Your task to perform on an android device: Add macbook air to the cart on newegg.com, then select checkout. Image 0: 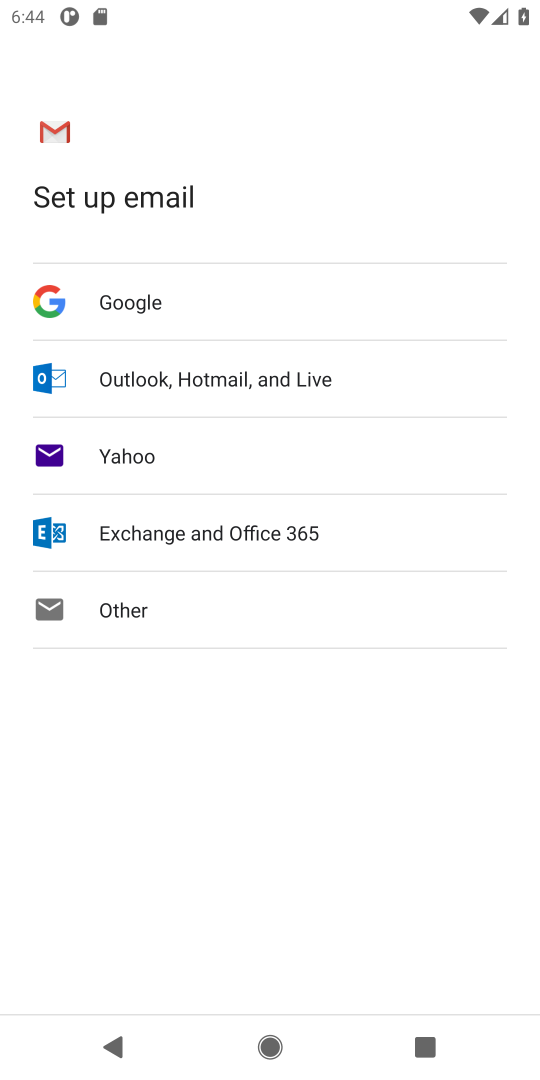
Step 0: press home button
Your task to perform on an android device: Add macbook air to the cart on newegg.com, then select checkout. Image 1: 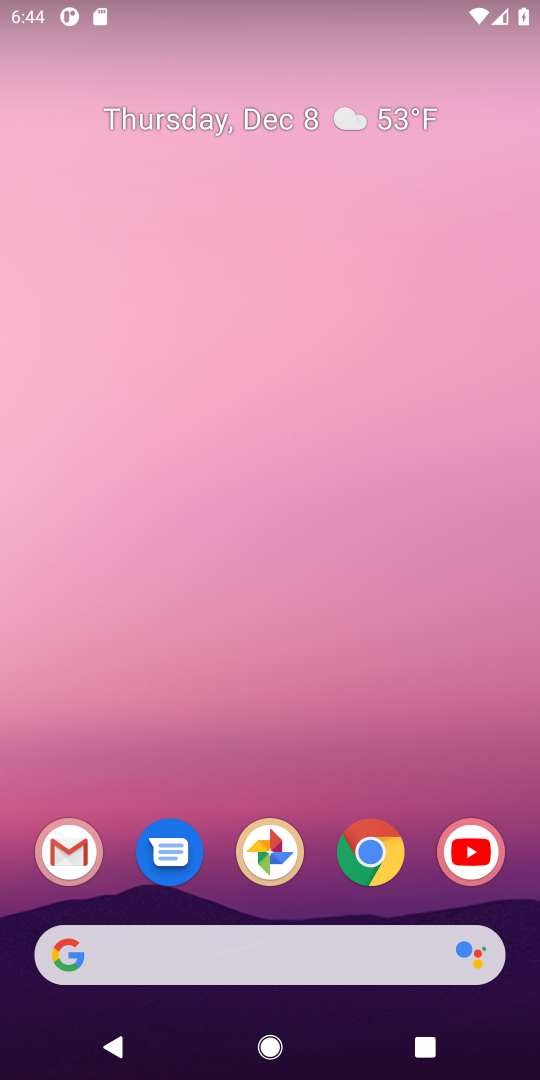
Step 1: click (203, 972)
Your task to perform on an android device: Add macbook air to the cart on newegg.com, then select checkout. Image 2: 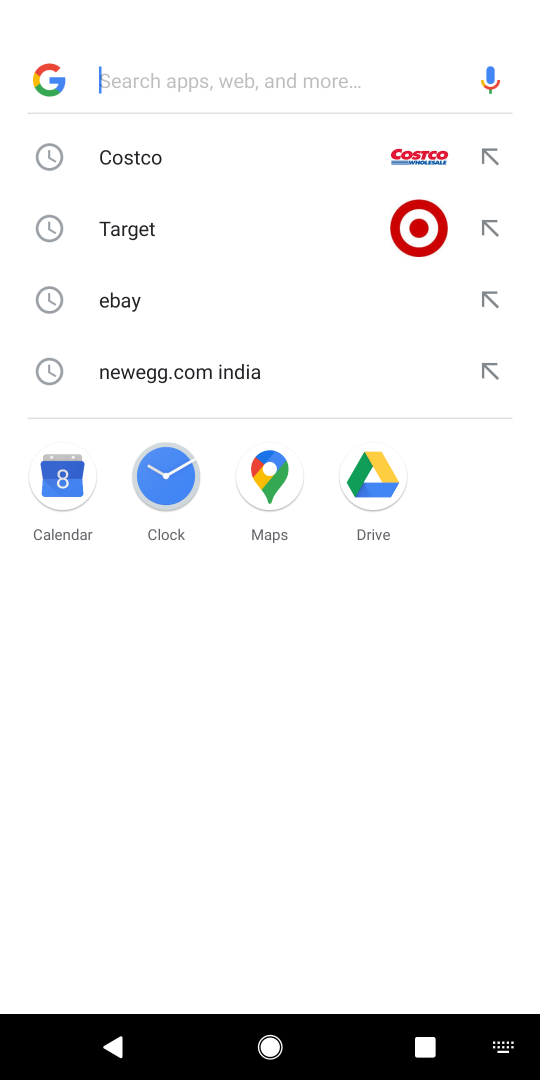
Step 2: type "newegg"
Your task to perform on an android device: Add macbook air to the cart on newegg.com, then select checkout. Image 3: 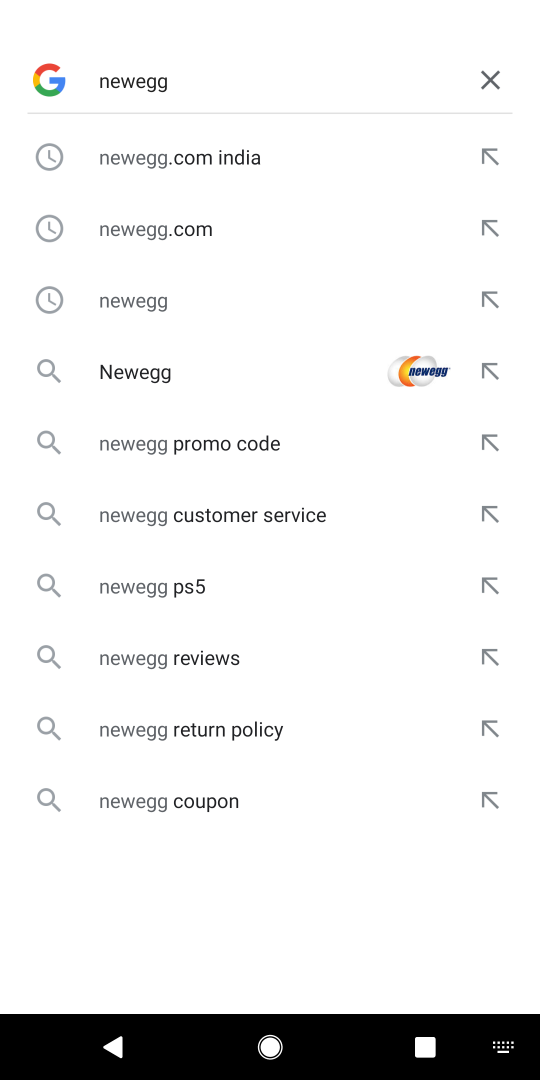
Step 3: click (195, 220)
Your task to perform on an android device: Add macbook air to the cart on newegg.com, then select checkout. Image 4: 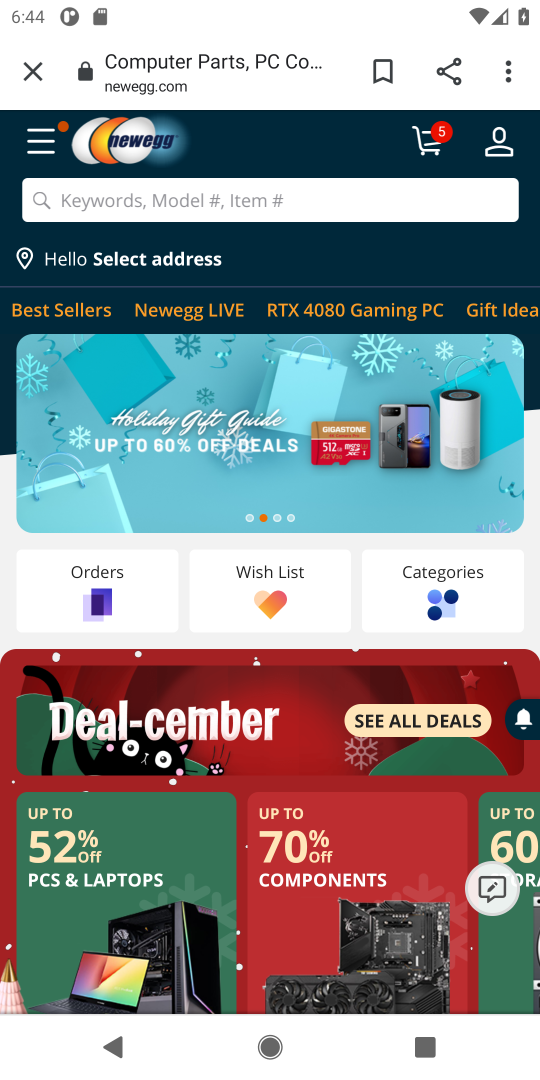
Step 4: click (151, 196)
Your task to perform on an android device: Add macbook air to the cart on newegg.com, then select checkout. Image 5: 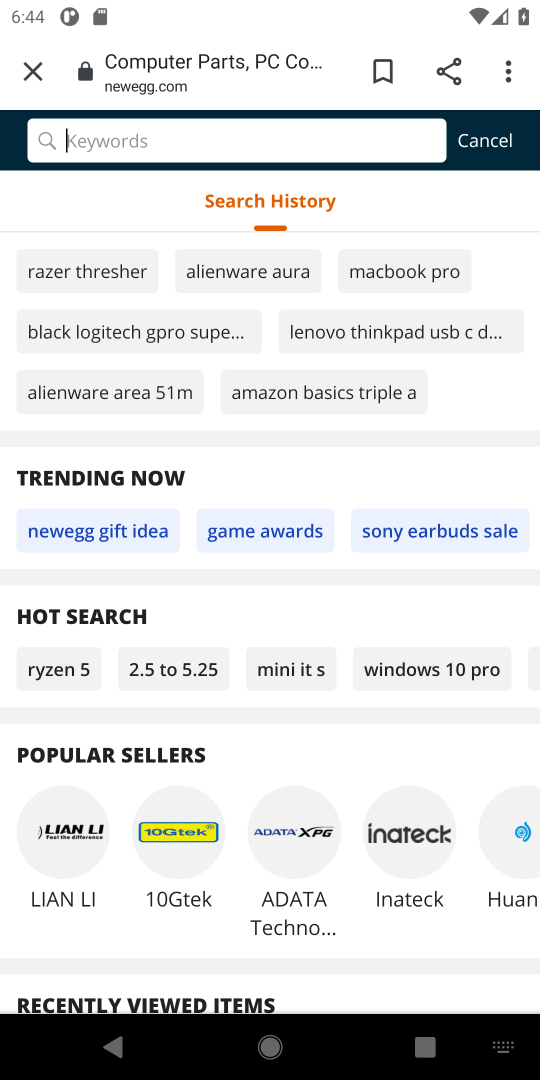
Step 5: click (436, 278)
Your task to perform on an android device: Add macbook air to the cart on newegg.com, then select checkout. Image 6: 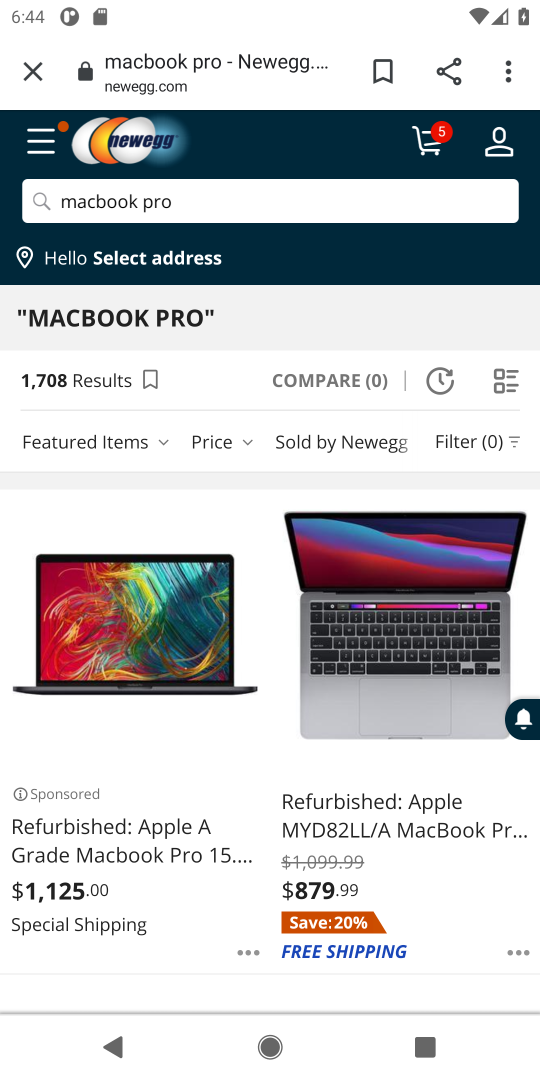
Step 6: click (300, 783)
Your task to perform on an android device: Add macbook air to the cart on newegg.com, then select checkout. Image 7: 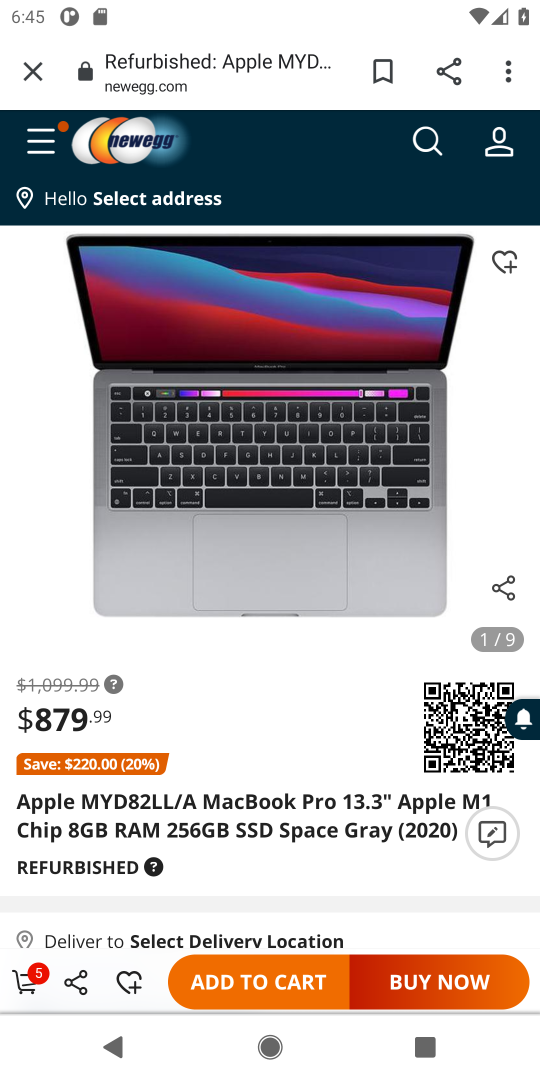
Step 7: click (254, 995)
Your task to perform on an android device: Add macbook air to the cart on newegg.com, then select checkout. Image 8: 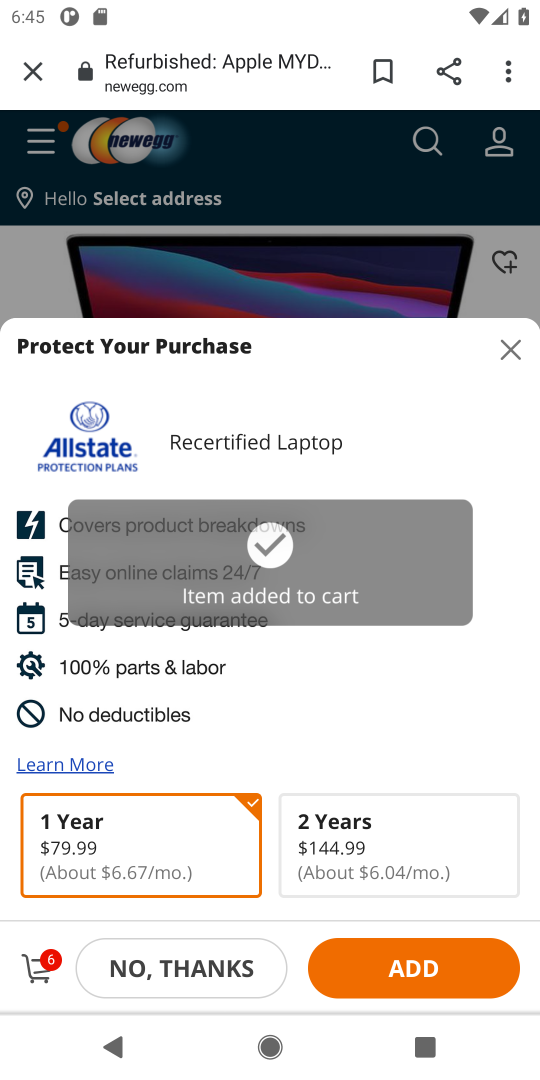
Step 8: task complete